Your task to perform on an android device: Open Reddit.com Image 0: 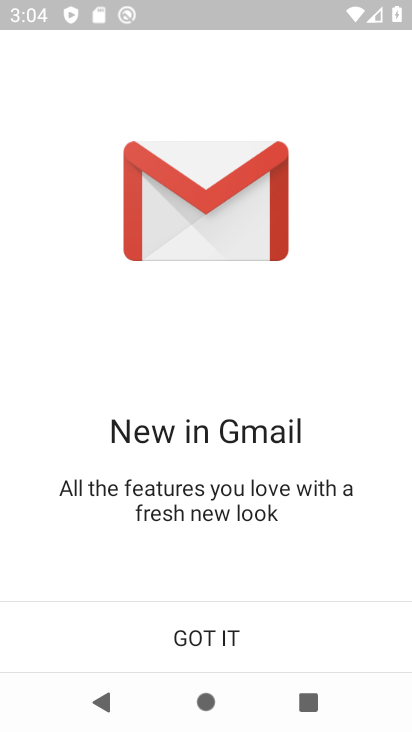
Step 0: press home button
Your task to perform on an android device: Open Reddit.com Image 1: 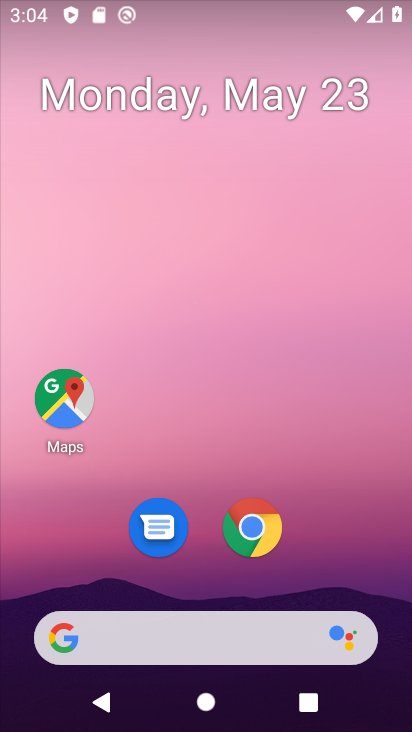
Step 1: click (273, 523)
Your task to perform on an android device: Open Reddit.com Image 2: 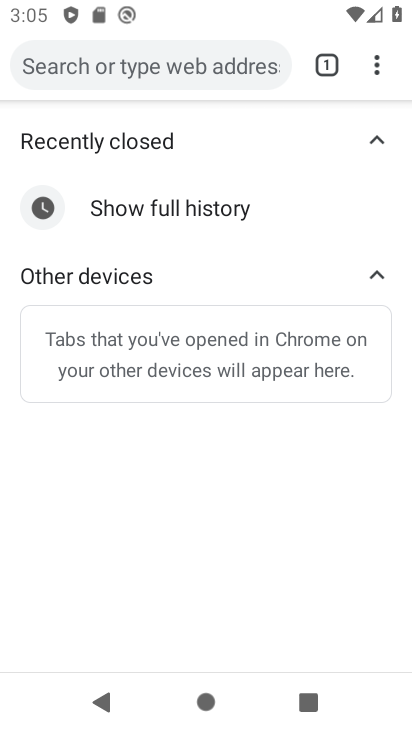
Step 2: click (330, 68)
Your task to perform on an android device: Open Reddit.com Image 3: 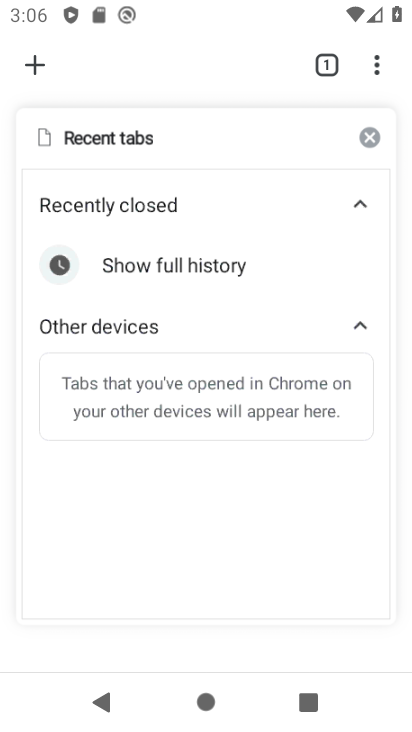
Step 3: click (43, 57)
Your task to perform on an android device: Open Reddit.com Image 4: 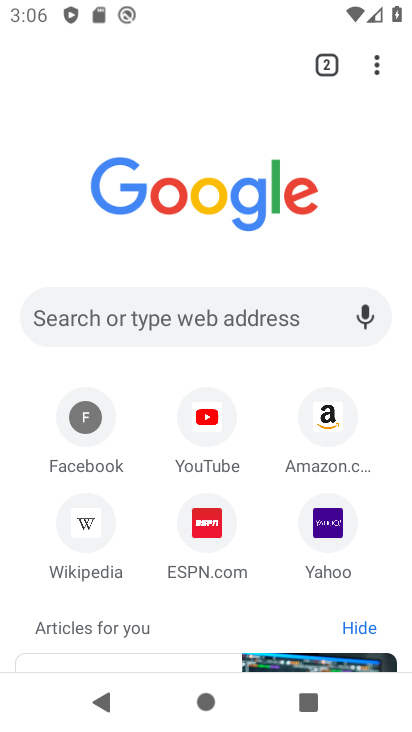
Step 4: click (35, 72)
Your task to perform on an android device: Open Reddit.com Image 5: 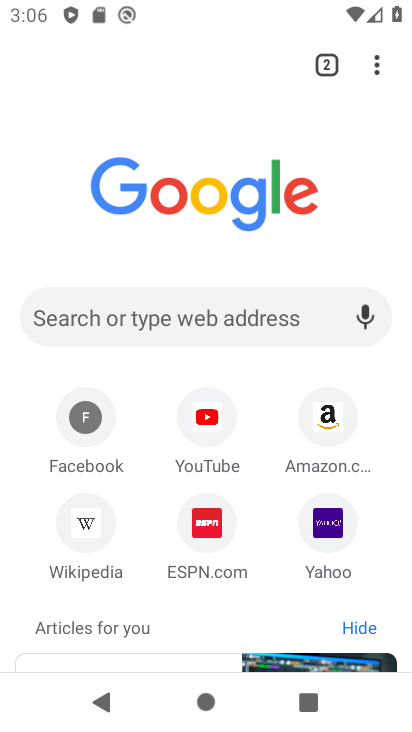
Step 5: click (164, 325)
Your task to perform on an android device: Open Reddit.com Image 6: 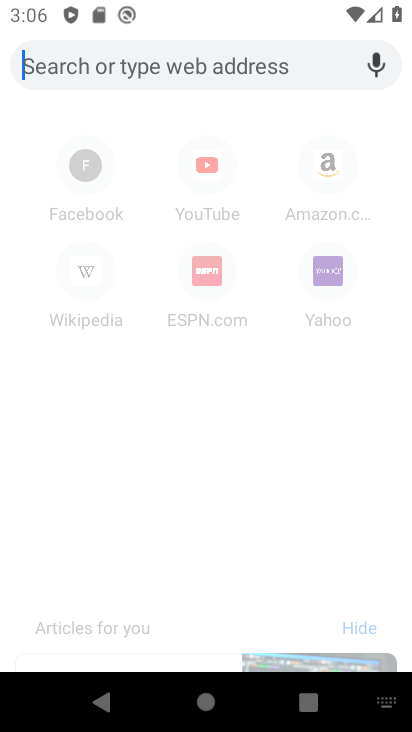
Step 6: click (168, 306)
Your task to perform on an android device: Open Reddit.com Image 7: 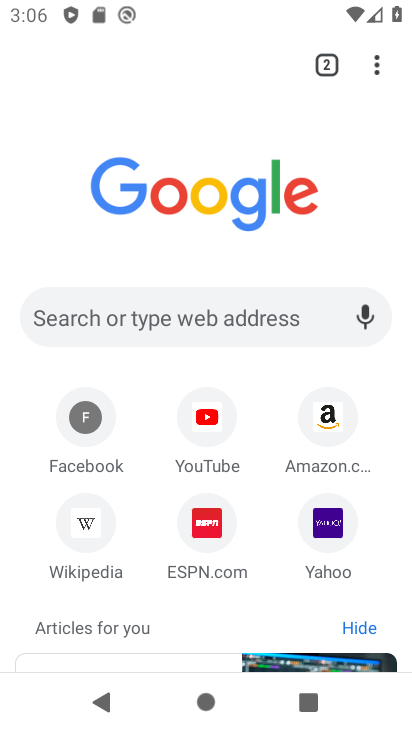
Step 7: type "reddit"
Your task to perform on an android device: Open Reddit.com Image 8: 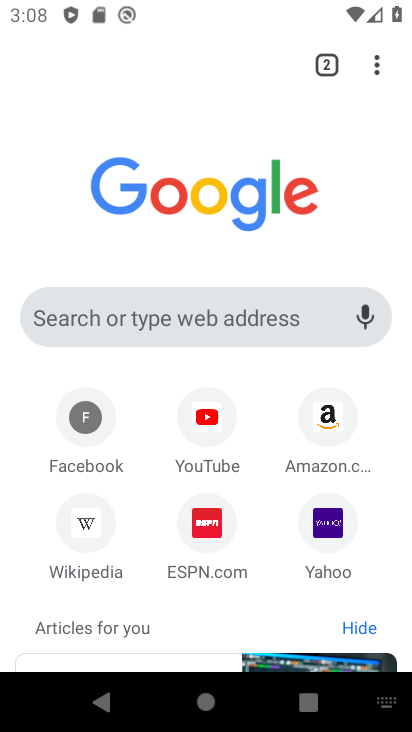
Step 8: click (112, 320)
Your task to perform on an android device: Open Reddit.com Image 9: 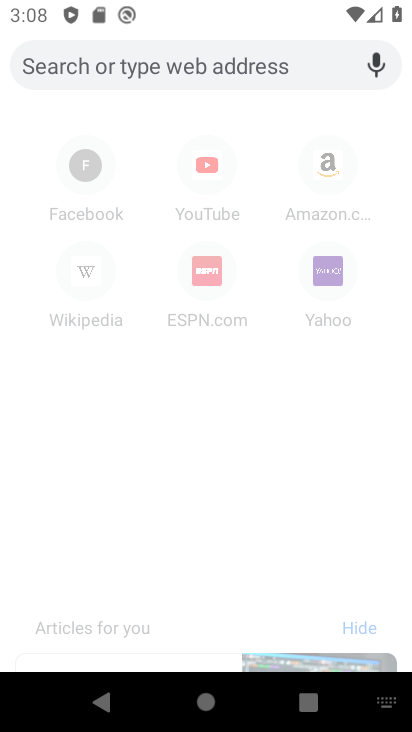
Step 9: type "reddit"
Your task to perform on an android device: Open Reddit.com Image 10: 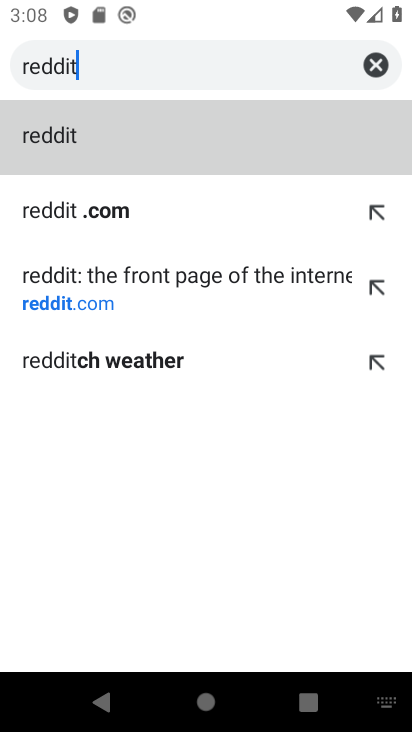
Step 10: click (139, 208)
Your task to perform on an android device: Open Reddit.com Image 11: 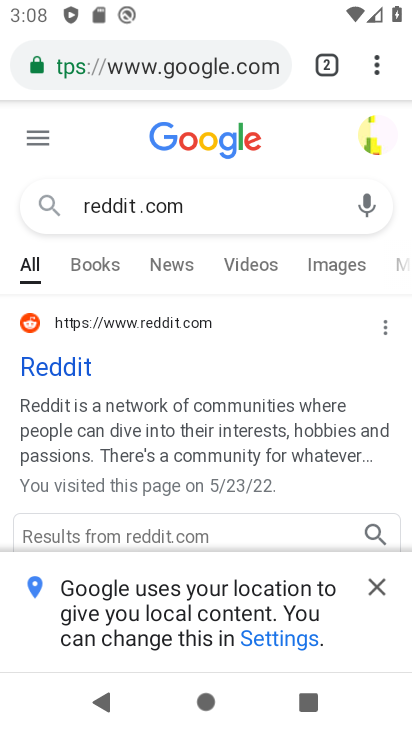
Step 11: click (75, 357)
Your task to perform on an android device: Open Reddit.com Image 12: 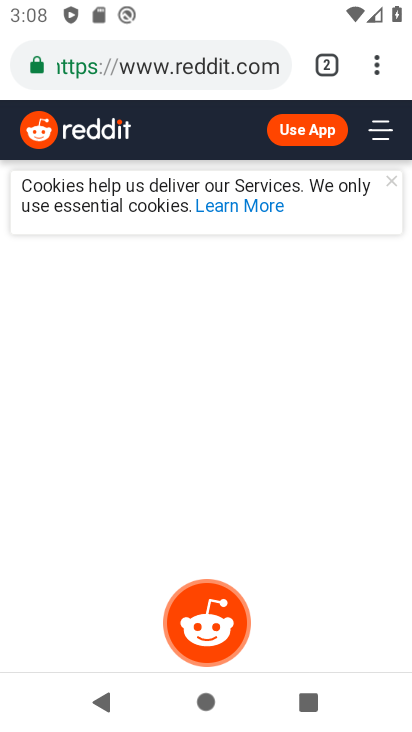
Step 12: task complete